Your task to perform on an android device: manage bookmarks in the chrome app Image 0: 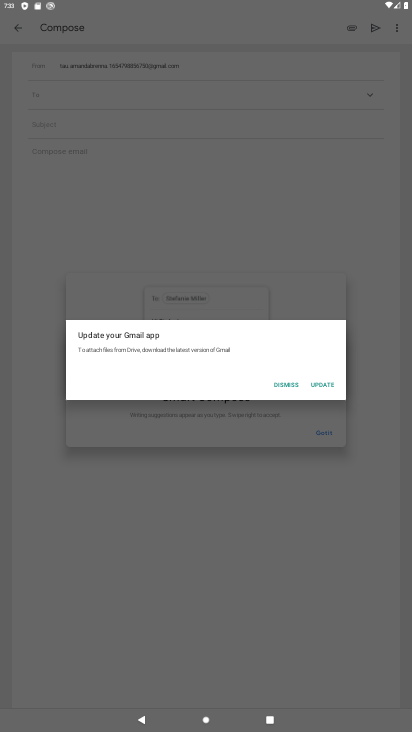
Step 0: press home button
Your task to perform on an android device: manage bookmarks in the chrome app Image 1: 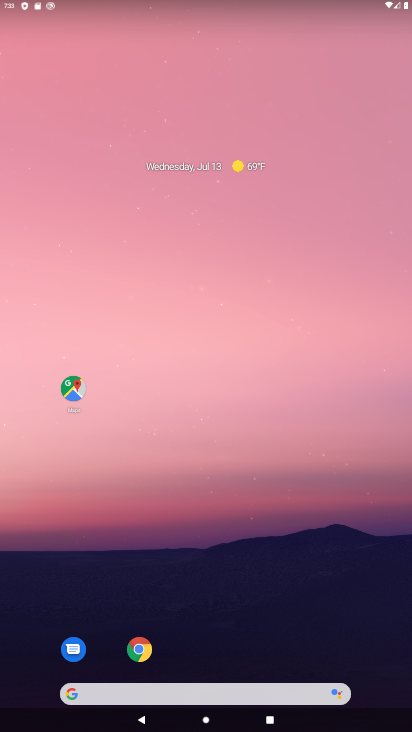
Step 1: drag from (197, 691) to (209, 116)
Your task to perform on an android device: manage bookmarks in the chrome app Image 2: 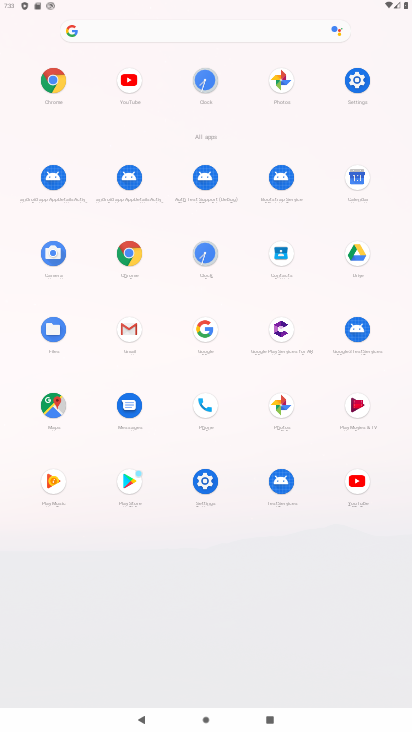
Step 2: click (51, 80)
Your task to perform on an android device: manage bookmarks in the chrome app Image 3: 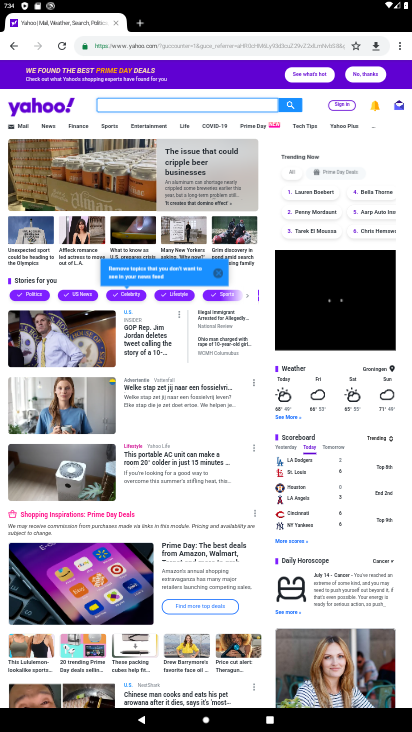
Step 3: click (398, 45)
Your task to perform on an android device: manage bookmarks in the chrome app Image 4: 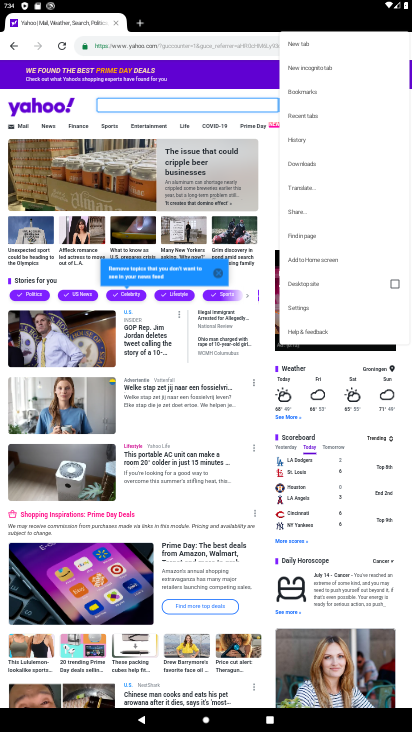
Step 4: click (314, 95)
Your task to perform on an android device: manage bookmarks in the chrome app Image 5: 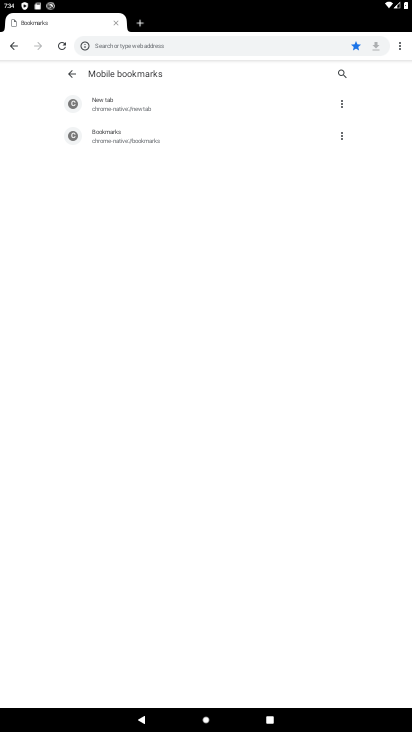
Step 5: task complete